Your task to perform on an android device: Open my contact list Image 0: 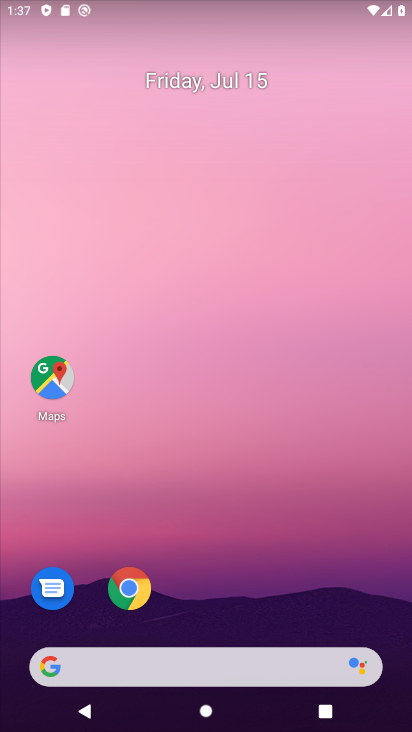
Step 0: drag from (196, 542) to (258, 14)
Your task to perform on an android device: Open my contact list Image 1: 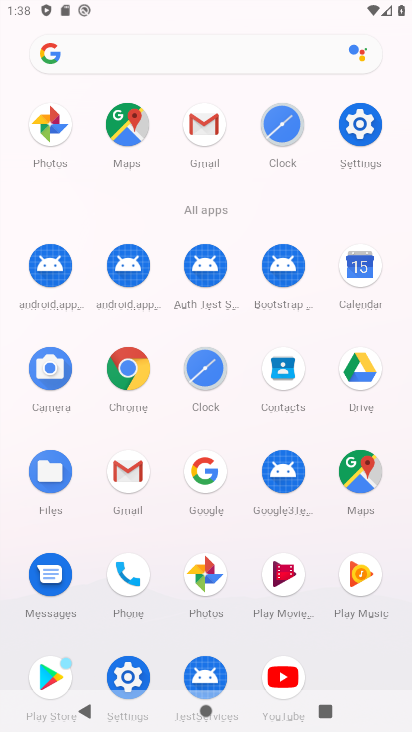
Step 1: click (278, 368)
Your task to perform on an android device: Open my contact list Image 2: 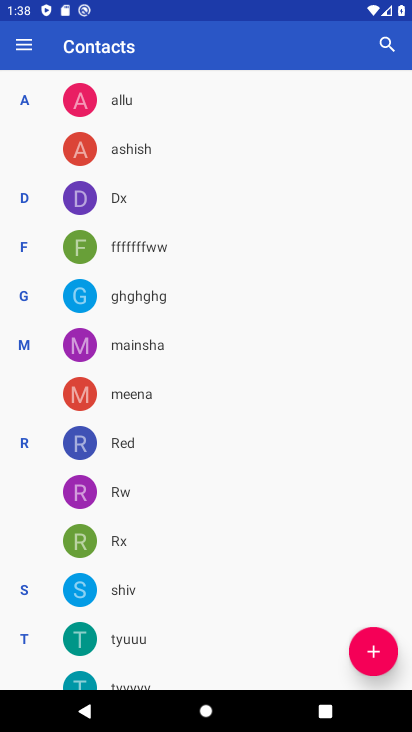
Step 2: task complete